Your task to perform on an android device: Open internet settings Image 0: 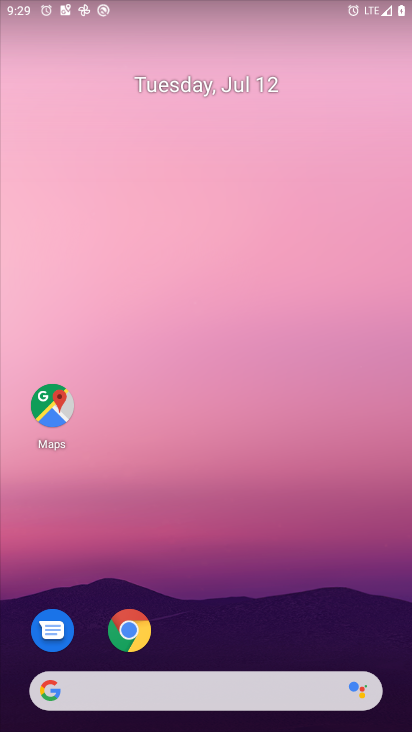
Step 0: press home button
Your task to perform on an android device: Open internet settings Image 1: 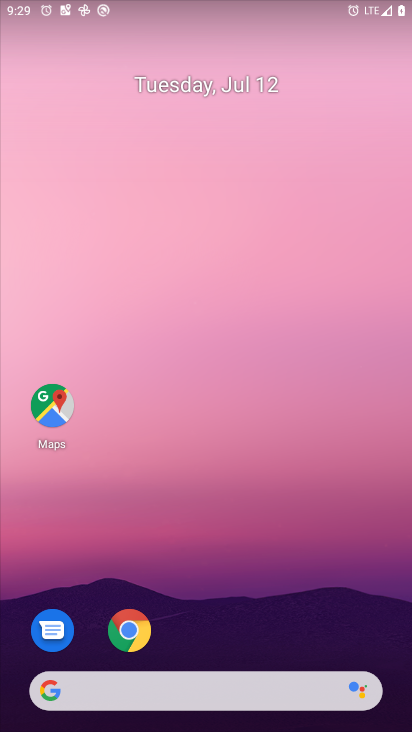
Step 1: drag from (269, 592) to (267, 110)
Your task to perform on an android device: Open internet settings Image 2: 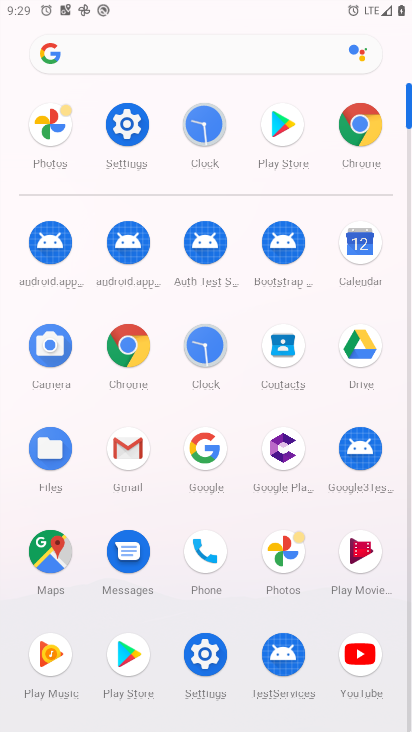
Step 2: click (119, 137)
Your task to perform on an android device: Open internet settings Image 3: 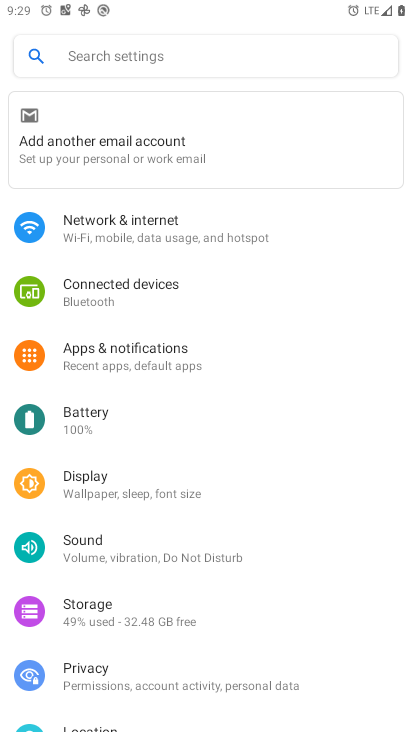
Step 3: click (139, 219)
Your task to perform on an android device: Open internet settings Image 4: 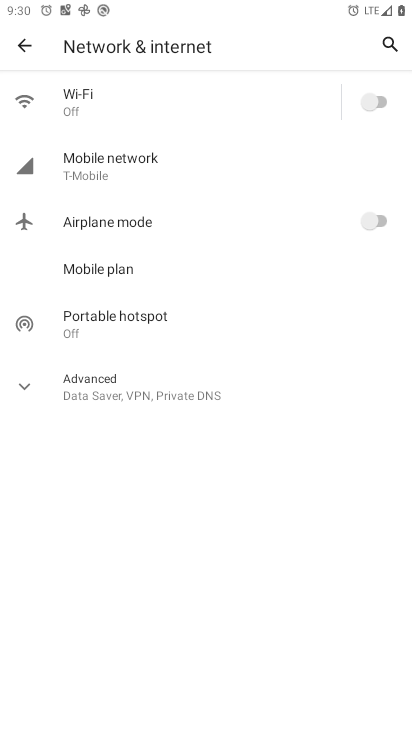
Step 4: task complete